Your task to perform on an android device: Open settings on Google Maps Image 0: 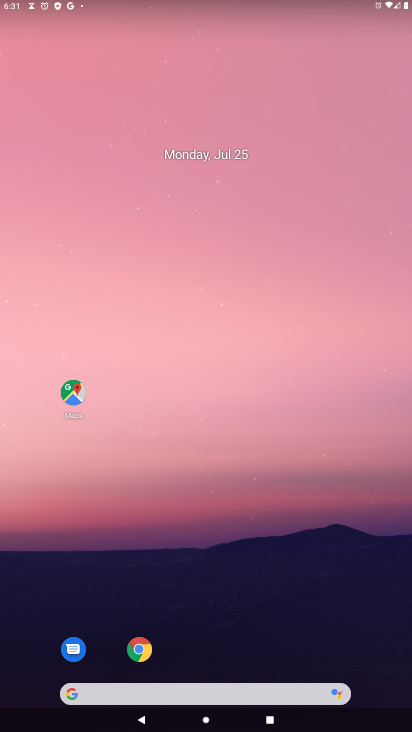
Step 0: drag from (320, 599) to (410, 40)
Your task to perform on an android device: Open settings on Google Maps Image 1: 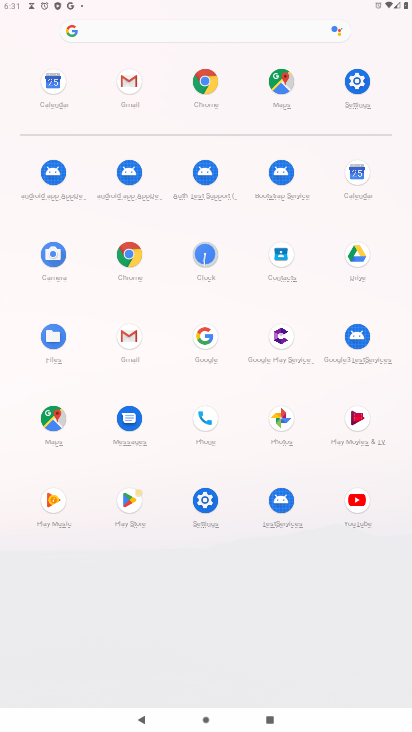
Step 1: click (55, 417)
Your task to perform on an android device: Open settings on Google Maps Image 2: 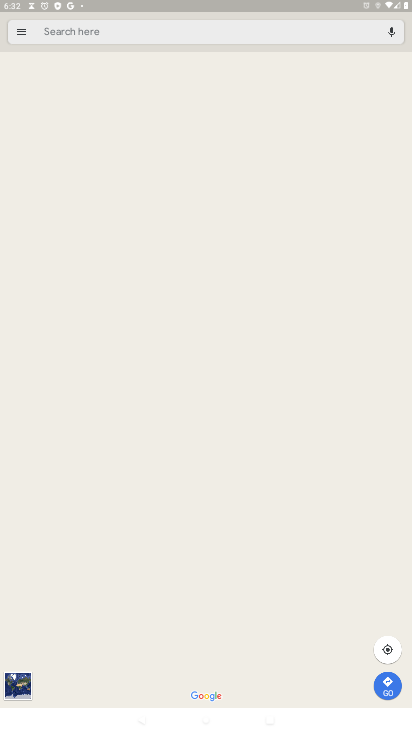
Step 2: click (20, 27)
Your task to perform on an android device: Open settings on Google Maps Image 3: 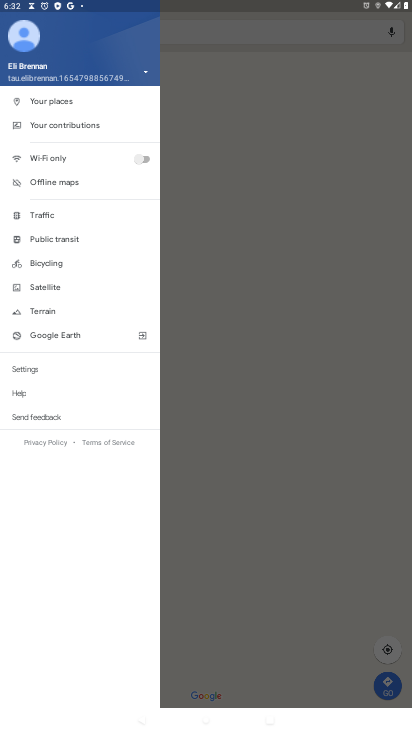
Step 3: click (44, 363)
Your task to perform on an android device: Open settings on Google Maps Image 4: 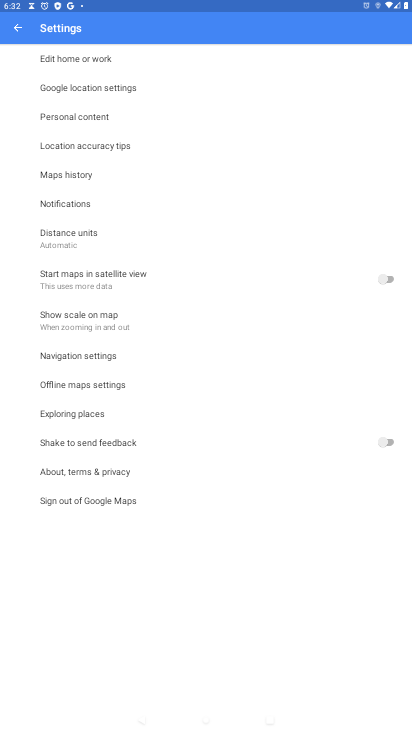
Step 4: task complete